Your task to perform on an android device: turn off location history Image 0: 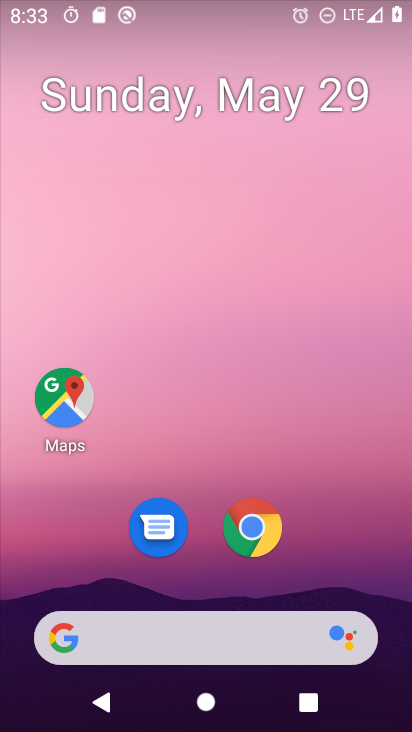
Step 0: click (307, 81)
Your task to perform on an android device: turn off location history Image 1: 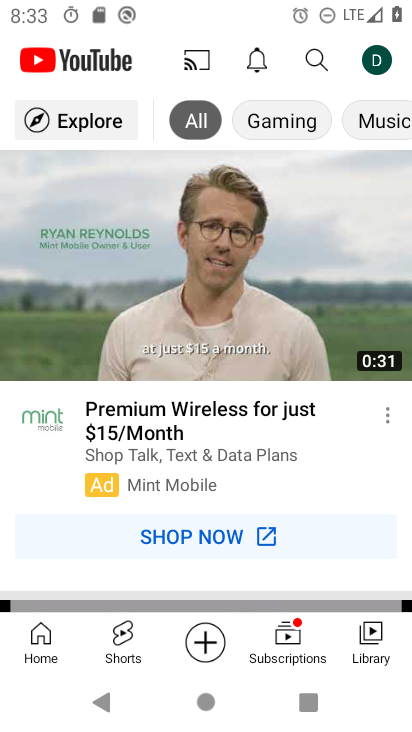
Step 1: press home button
Your task to perform on an android device: turn off location history Image 2: 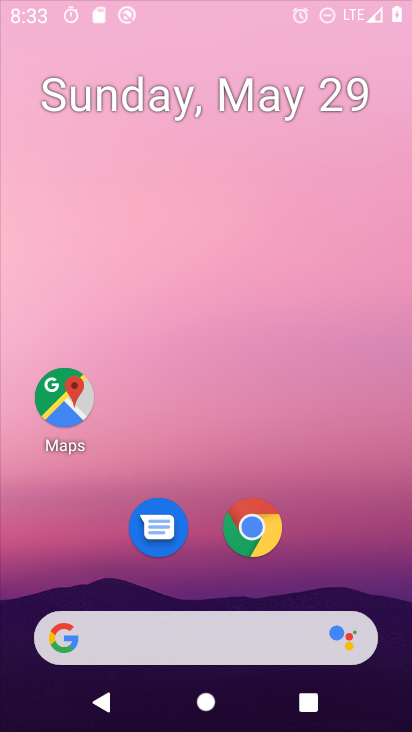
Step 2: drag from (392, 649) to (271, 19)
Your task to perform on an android device: turn off location history Image 3: 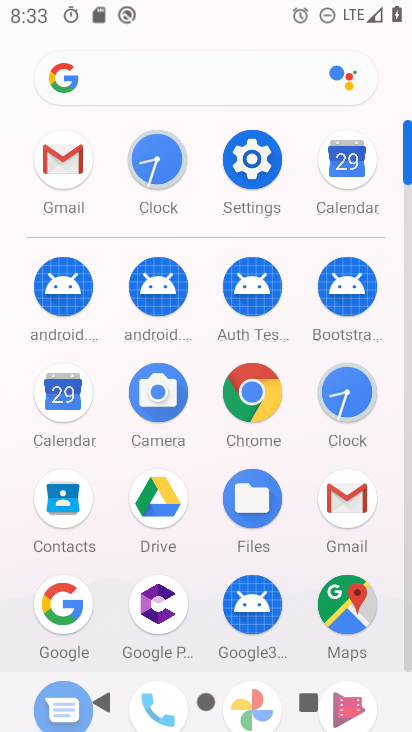
Step 3: click (255, 174)
Your task to perform on an android device: turn off location history Image 4: 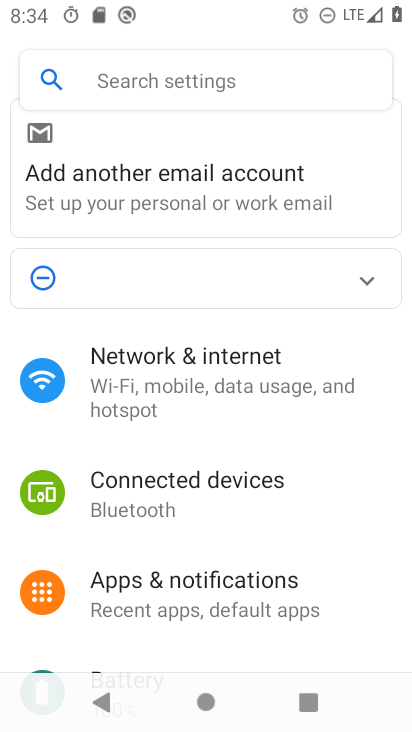
Step 4: drag from (194, 592) to (215, 34)
Your task to perform on an android device: turn off location history Image 5: 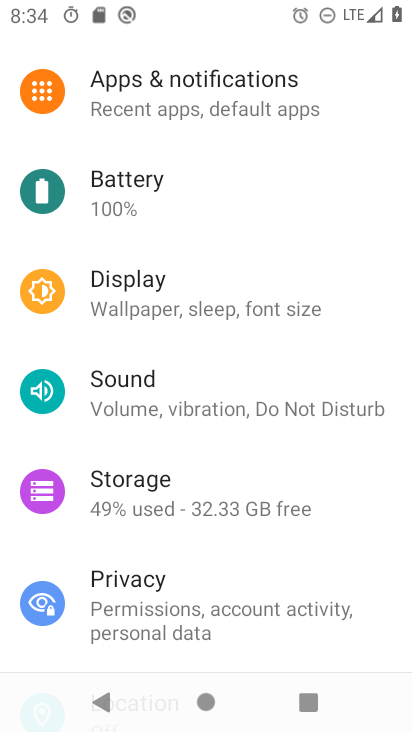
Step 5: drag from (178, 555) to (192, 143)
Your task to perform on an android device: turn off location history Image 6: 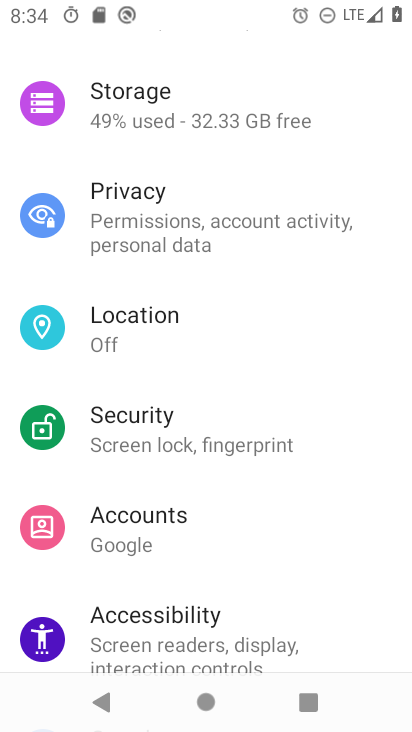
Step 6: click (147, 342)
Your task to perform on an android device: turn off location history Image 7: 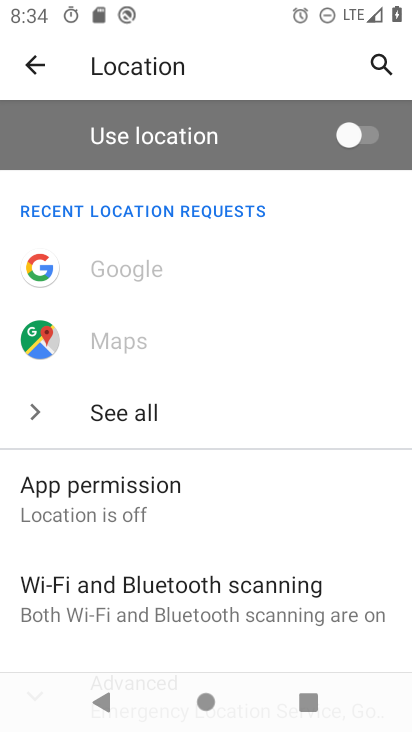
Step 7: drag from (128, 613) to (197, 178)
Your task to perform on an android device: turn off location history Image 8: 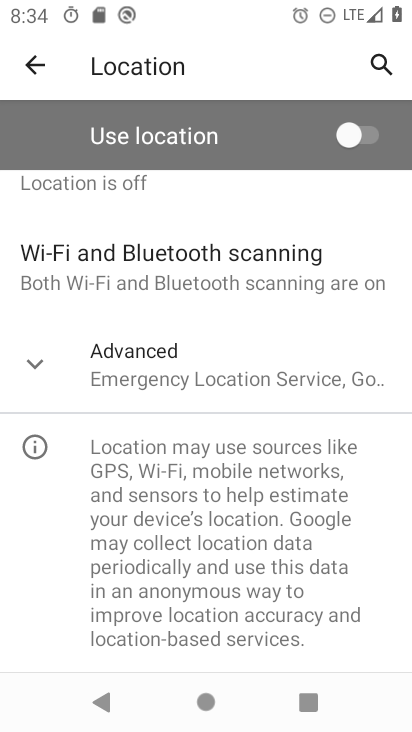
Step 8: click (143, 364)
Your task to perform on an android device: turn off location history Image 9: 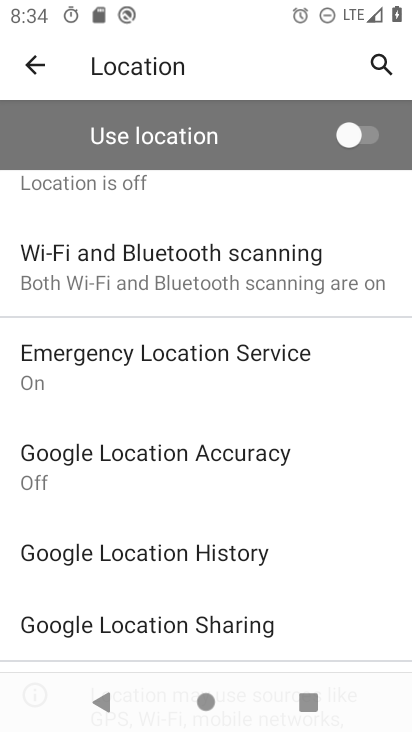
Step 9: click (260, 545)
Your task to perform on an android device: turn off location history Image 10: 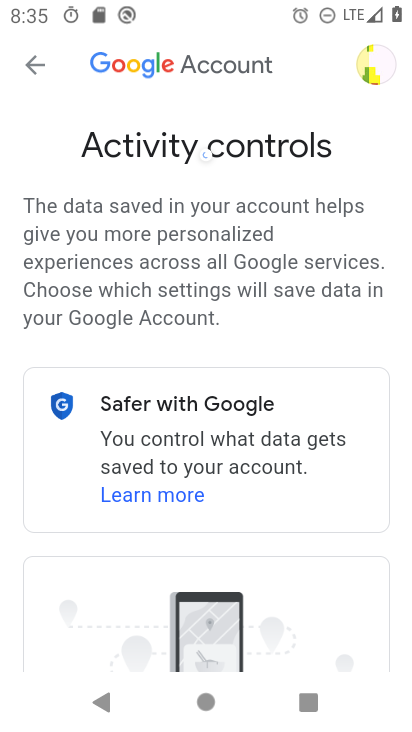
Step 10: drag from (313, 591) to (292, 56)
Your task to perform on an android device: turn off location history Image 11: 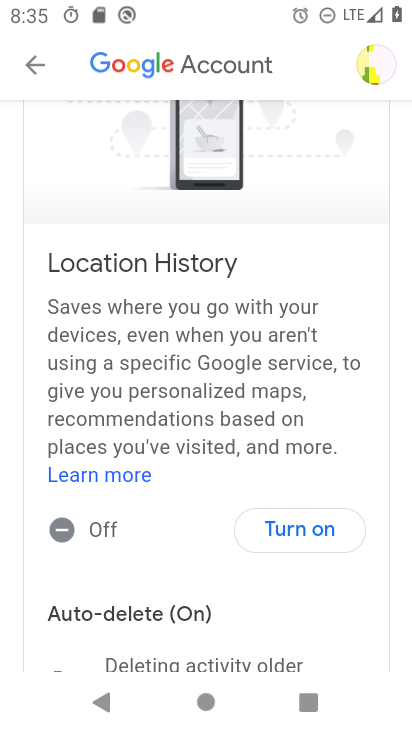
Step 11: click (298, 525)
Your task to perform on an android device: turn off location history Image 12: 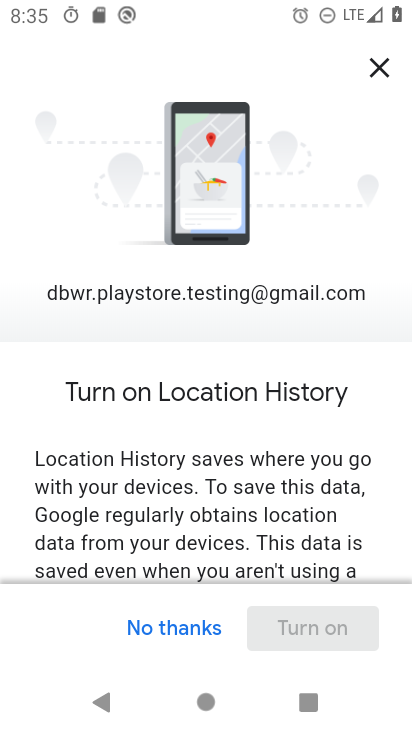
Step 12: task complete